Your task to perform on an android device: Search for flights from Tokyo to NYC Image 0: 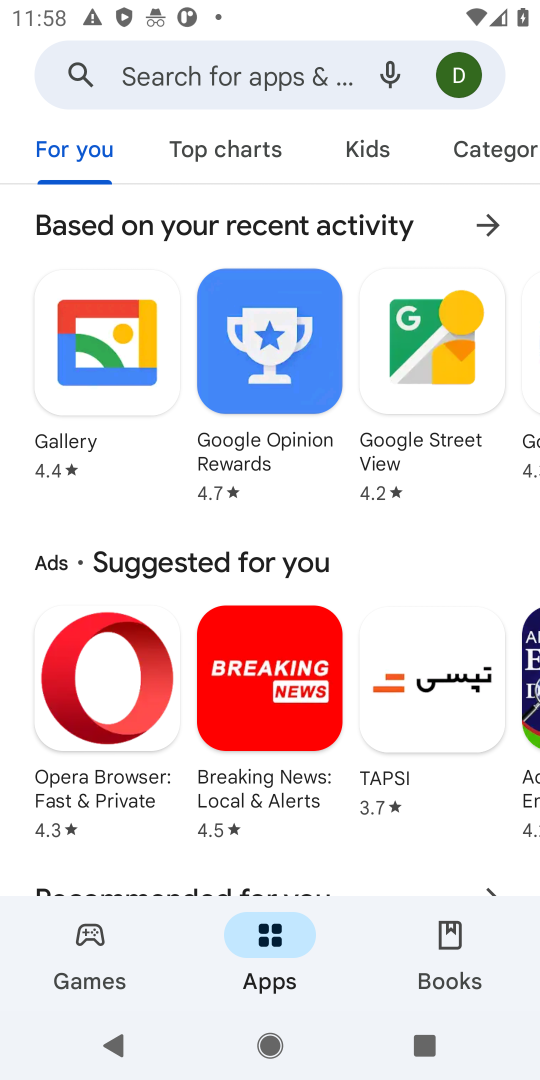
Step 0: click (197, 70)
Your task to perform on an android device: Search for flights from Tokyo to NYC Image 1: 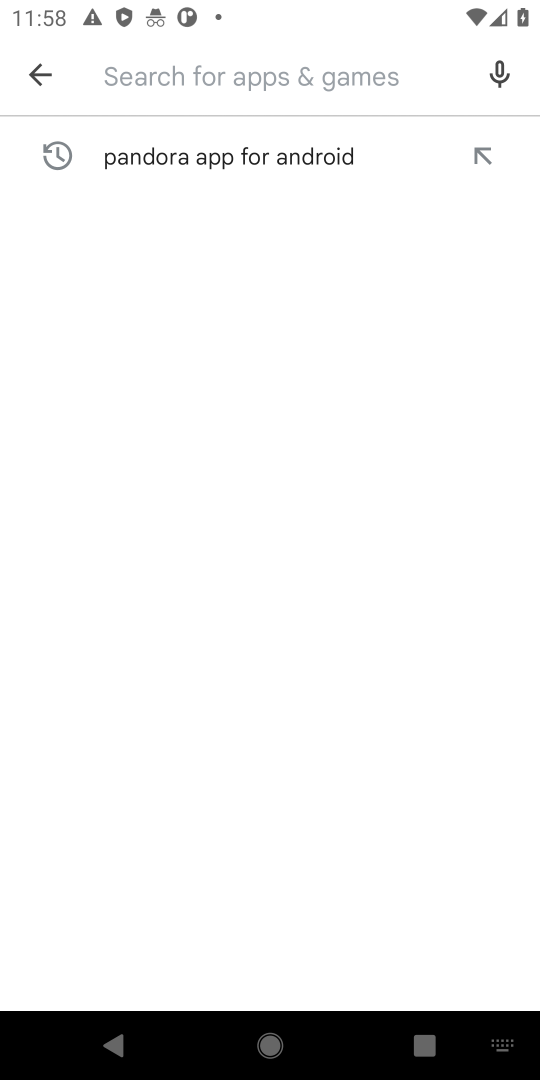
Step 1: type "Search for flights from Tokyo to NYC"
Your task to perform on an android device: Search for flights from Tokyo to NYC Image 2: 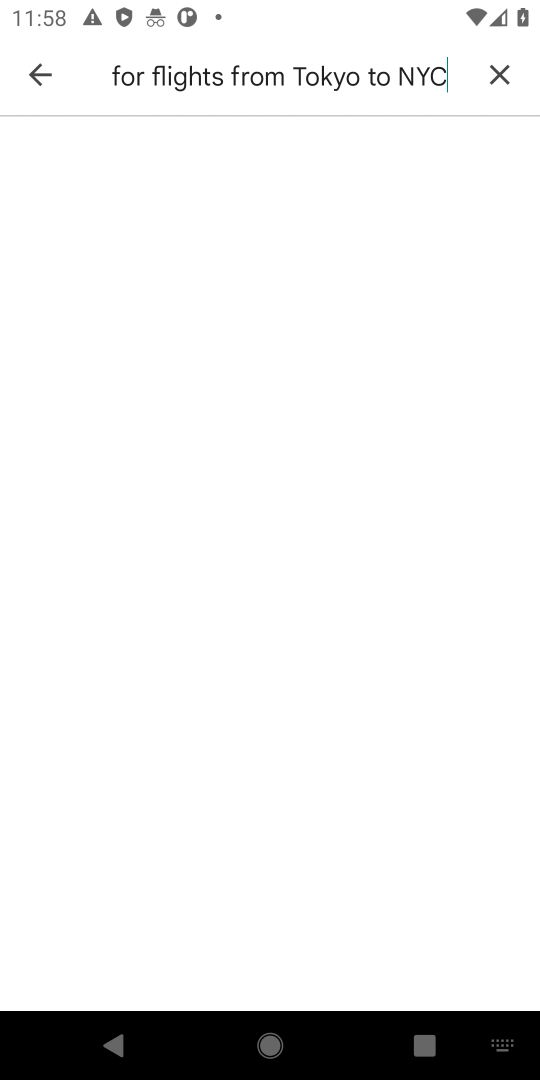
Step 2: click (368, 341)
Your task to perform on an android device: Search for flights from Tokyo to NYC Image 3: 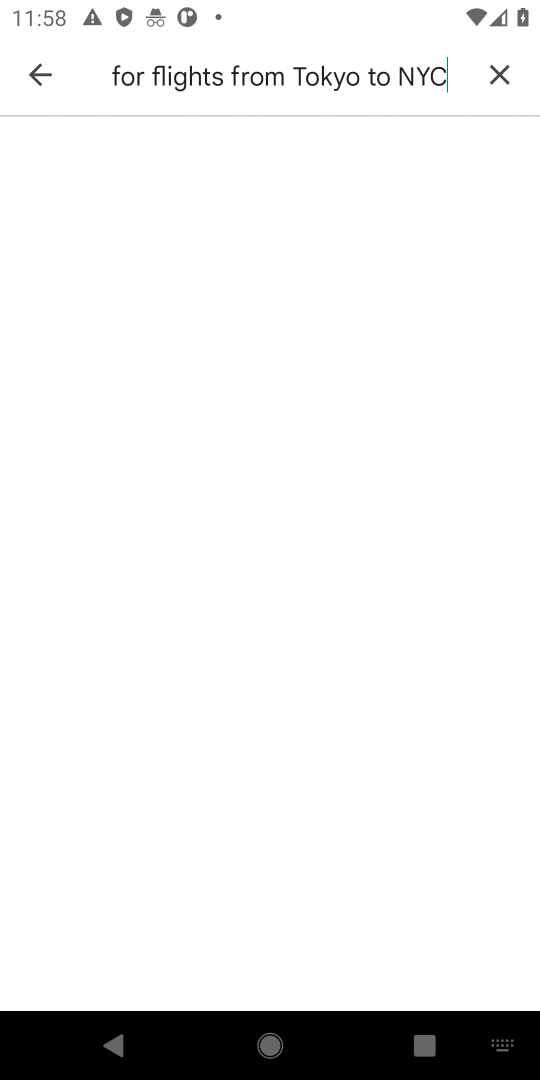
Step 3: click (386, 272)
Your task to perform on an android device: Search for flights from Tokyo to NYC Image 4: 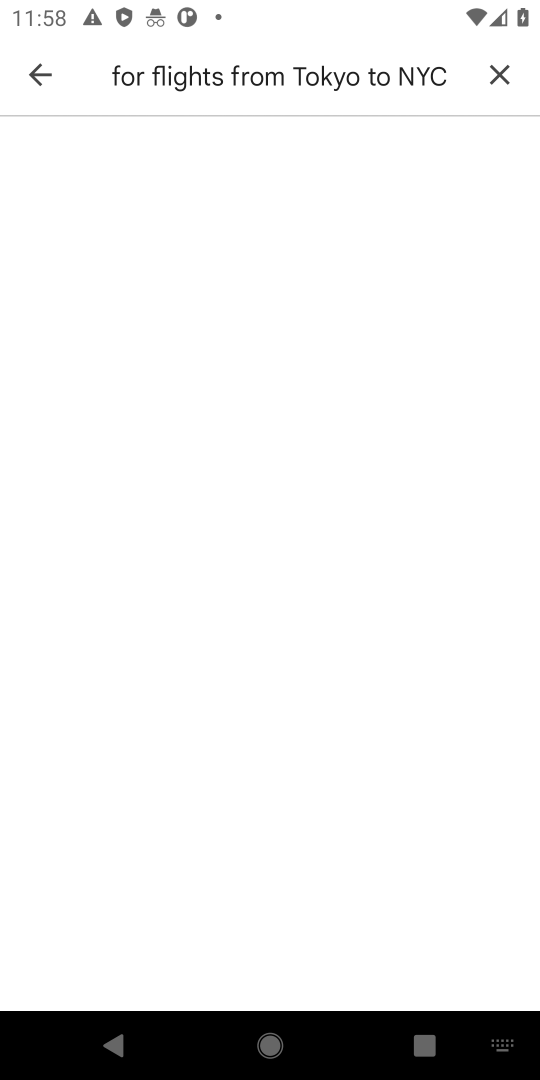
Step 4: click (500, 71)
Your task to perform on an android device: Search for flights from Tokyo to NYC Image 5: 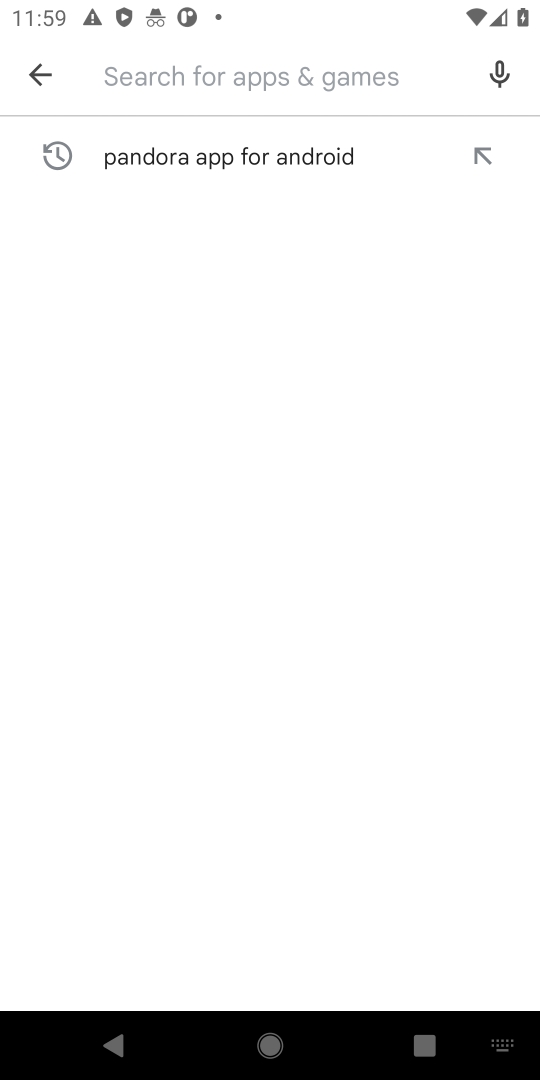
Step 5: click (48, 66)
Your task to perform on an android device: Search for flights from Tokyo to NYC Image 6: 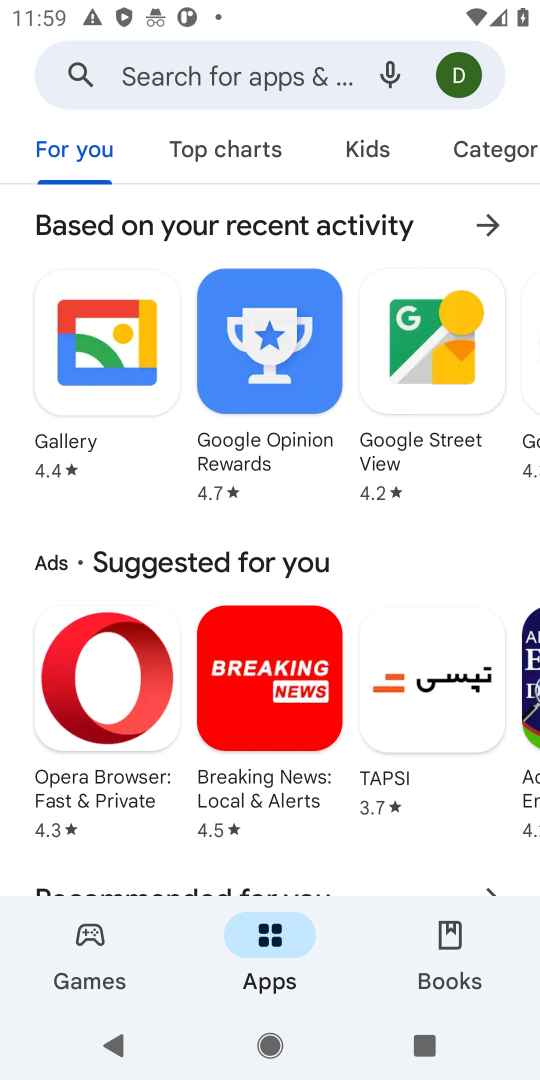
Step 6: press back button
Your task to perform on an android device: Search for flights from Tokyo to NYC Image 7: 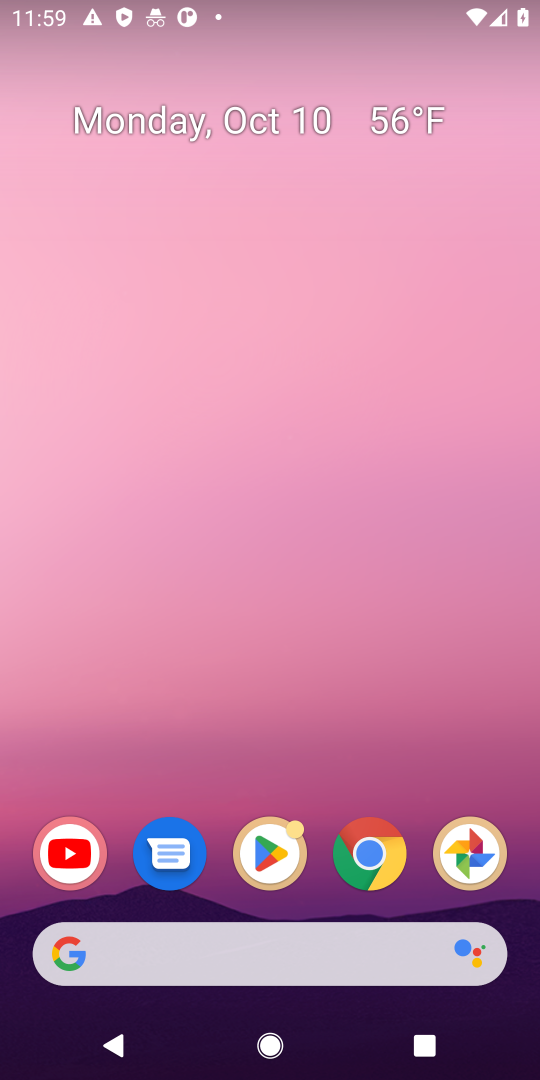
Step 7: click (362, 854)
Your task to perform on an android device: Search for flights from Tokyo to NYC Image 8: 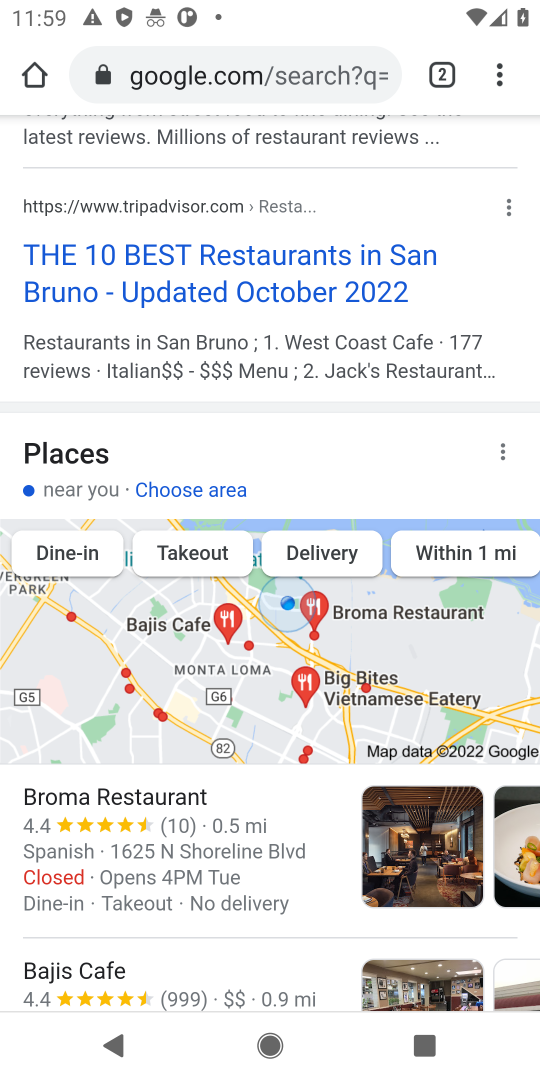
Step 8: click (275, 69)
Your task to perform on an android device: Search for flights from Tokyo to NYC Image 9: 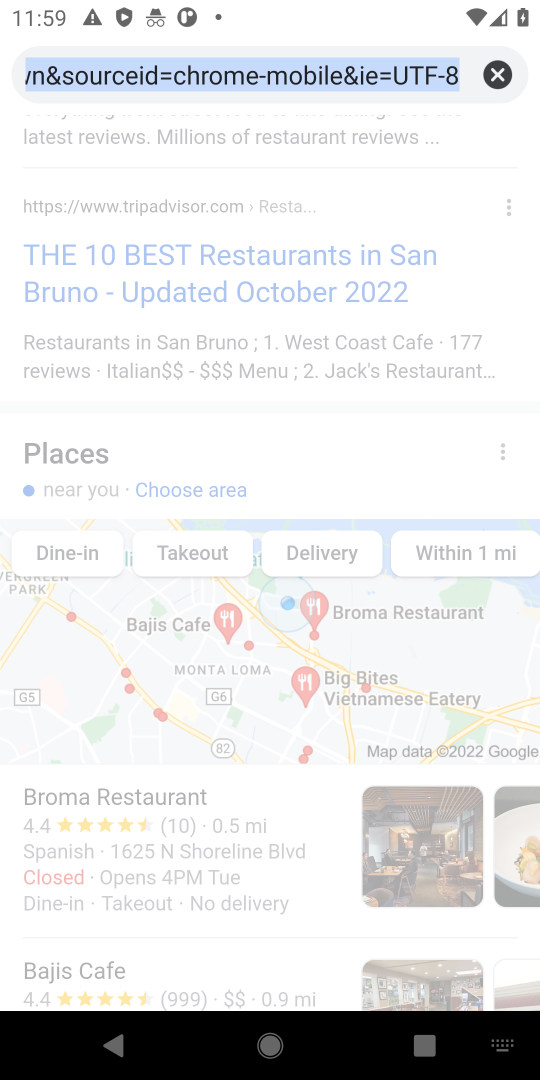
Step 9: click (486, 65)
Your task to perform on an android device: Search for flights from Tokyo to NYC Image 10: 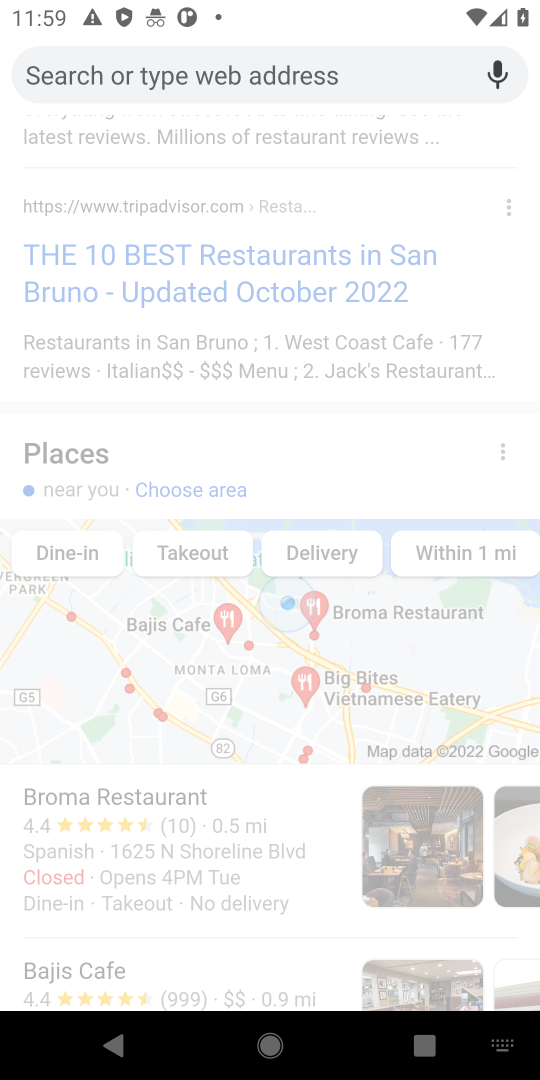
Step 10: type "Search for flights from Tokyo to NYC"
Your task to perform on an android device: Search for flights from Tokyo to NYC Image 11: 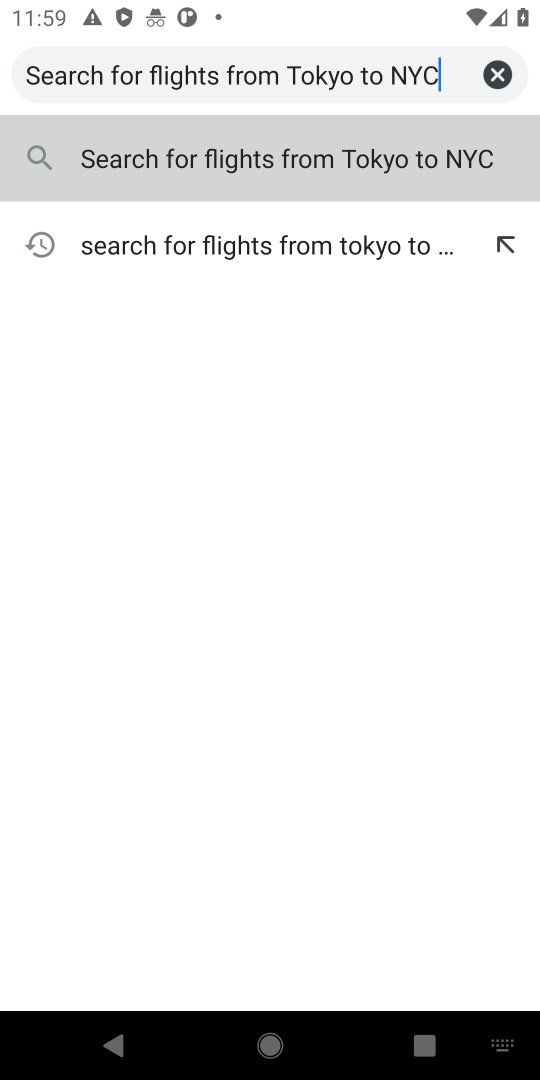
Step 11: click (213, 159)
Your task to perform on an android device: Search for flights from Tokyo to NYC Image 12: 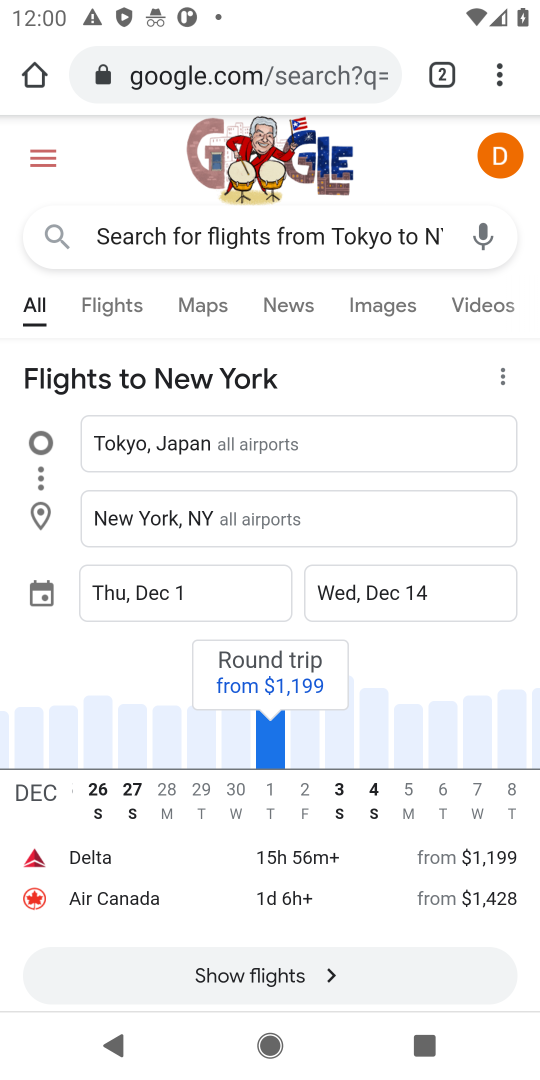
Step 12: task complete